Your task to perform on an android device: change the clock display to analog Image 0: 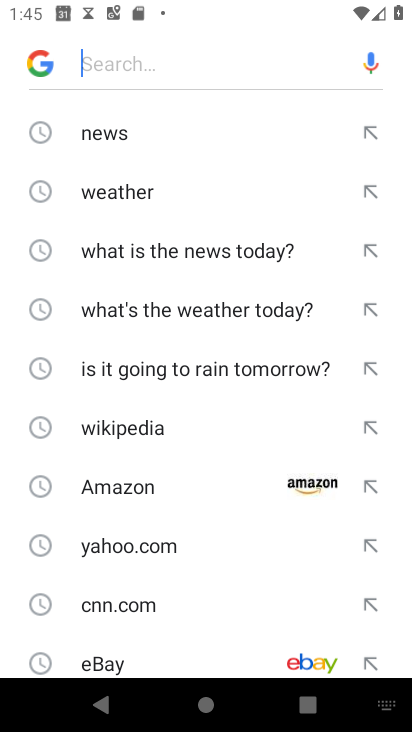
Step 0: press home button
Your task to perform on an android device: change the clock display to analog Image 1: 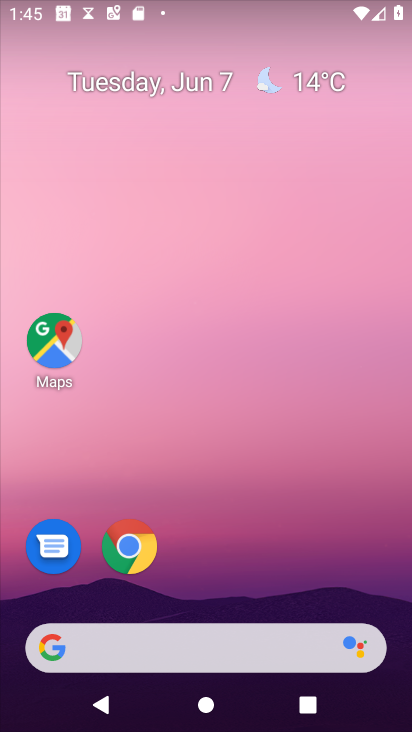
Step 1: drag from (322, 569) to (305, 18)
Your task to perform on an android device: change the clock display to analog Image 2: 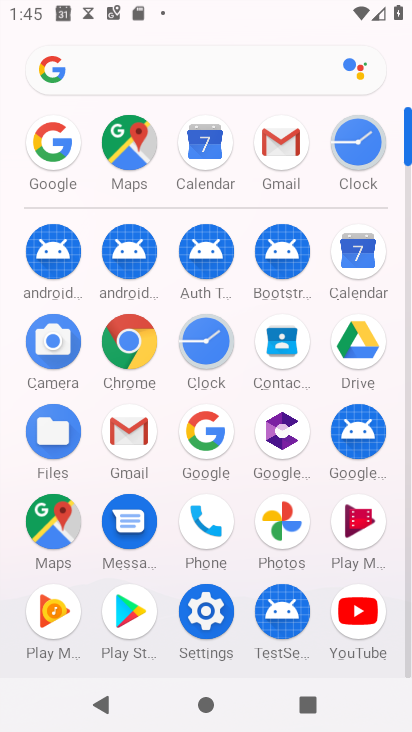
Step 2: click (348, 160)
Your task to perform on an android device: change the clock display to analog Image 3: 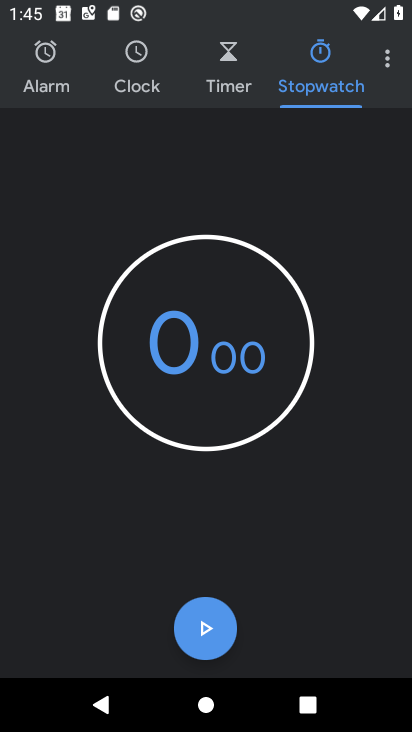
Step 3: click (388, 62)
Your task to perform on an android device: change the clock display to analog Image 4: 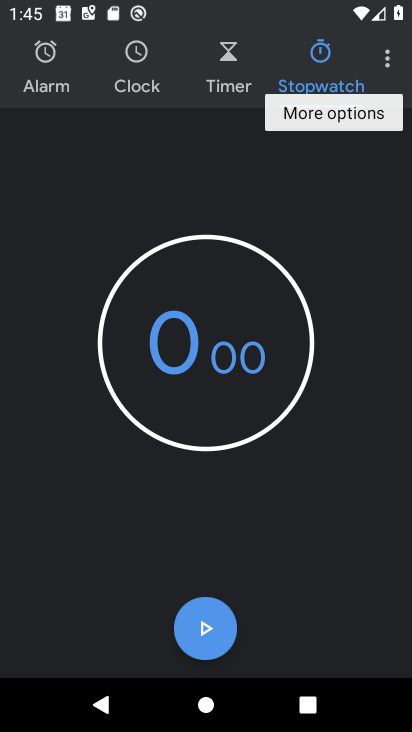
Step 4: click (385, 59)
Your task to perform on an android device: change the clock display to analog Image 5: 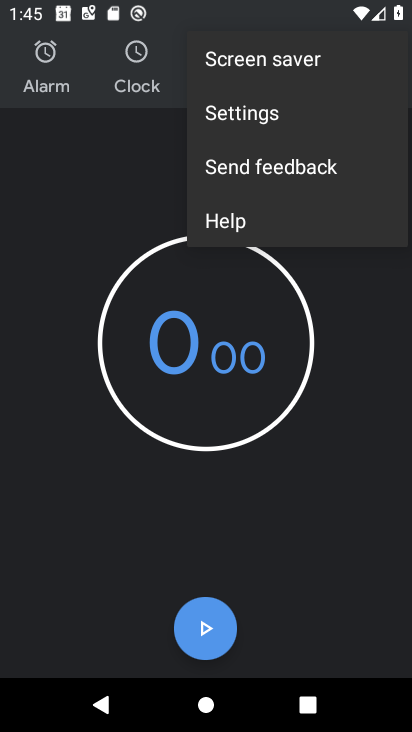
Step 5: click (270, 120)
Your task to perform on an android device: change the clock display to analog Image 6: 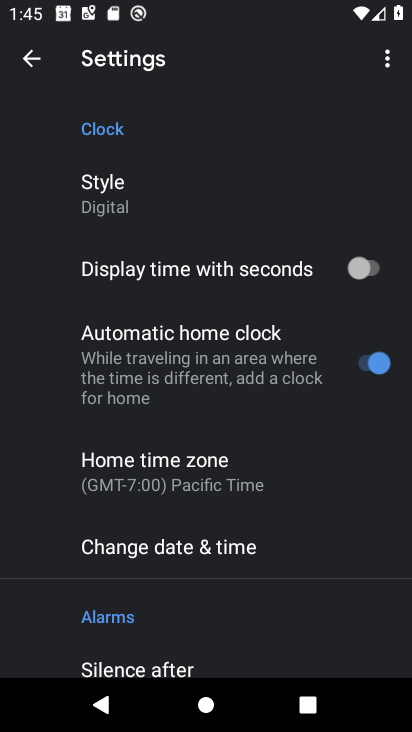
Step 6: click (148, 192)
Your task to perform on an android device: change the clock display to analog Image 7: 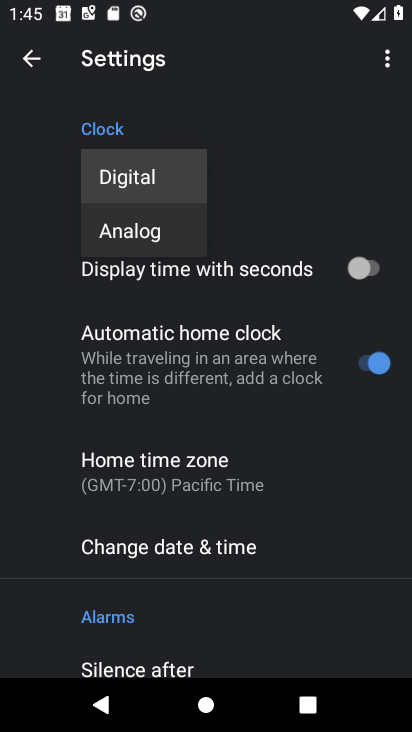
Step 7: click (151, 227)
Your task to perform on an android device: change the clock display to analog Image 8: 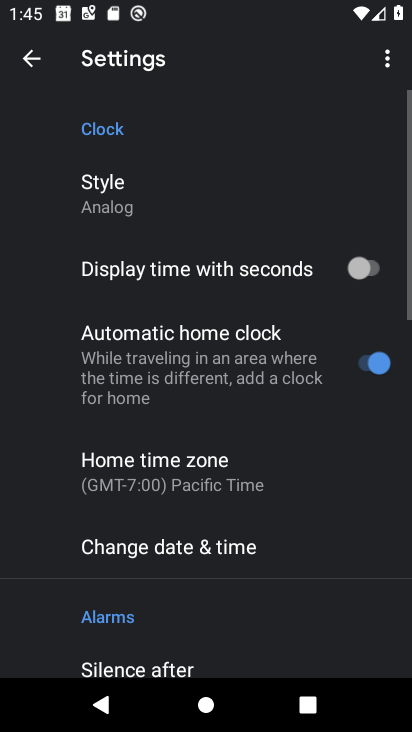
Step 8: task complete